Your task to perform on an android device: Go to notification settings Image 0: 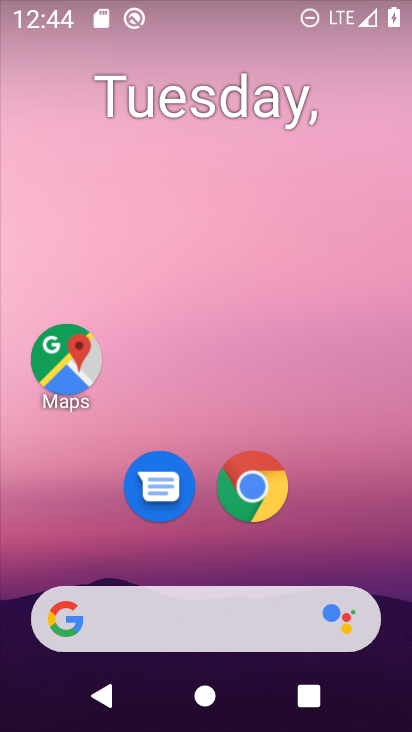
Step 0: drag from (238, 563) to (221, 145)
Your task to perform on an android device: Go to notification settings Image 1: 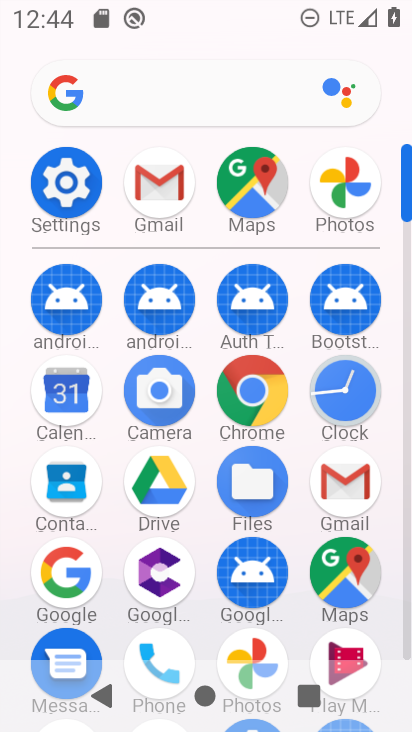
Step 1: drag from (192, 268) to (188, 118)
Your task to perform on an android device: Go to notification settings Image 2: 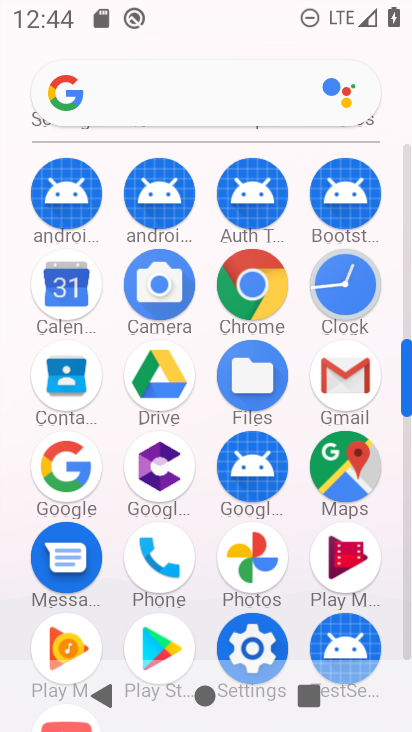
Step 2: click (249, 634)
Your task to perform on an android device: Go to notification settings Image 3: 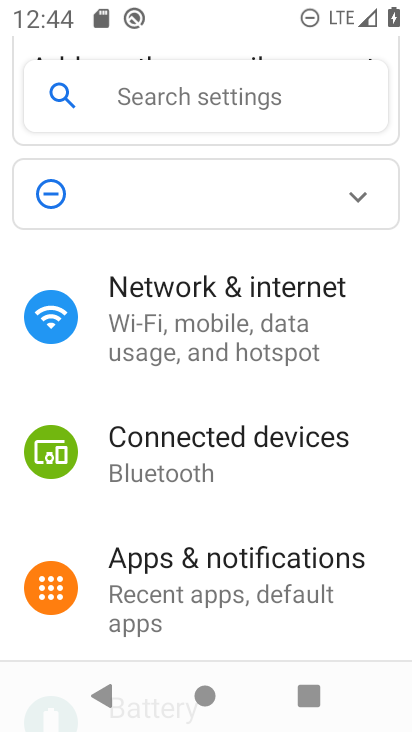
Step 3: click (245, 564)
Your task to perform on an android device: Go to notification settings Image 4: 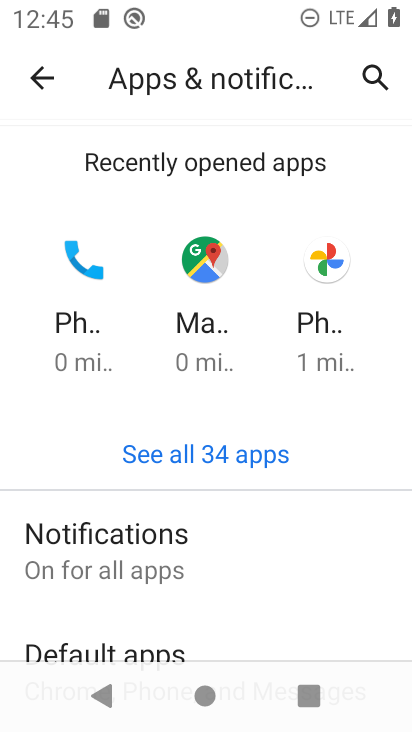
Step 4: click (185, 560)
Your task to perform on an android device: Go to notification settings Image 5: 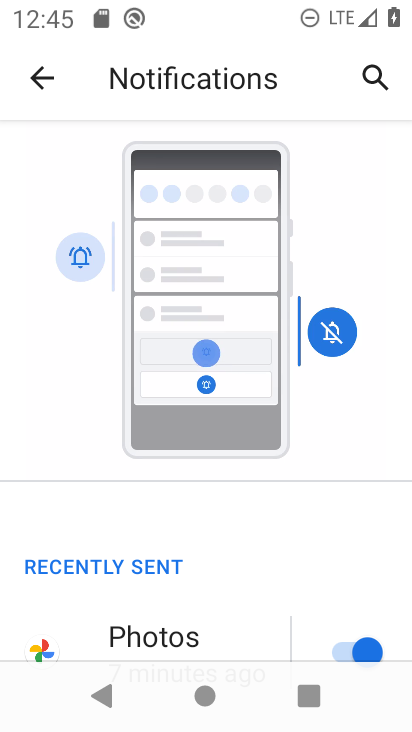
Step 5: task complete